Your task to perform on an android device: Open the calendar and show me this week's events Image 0: 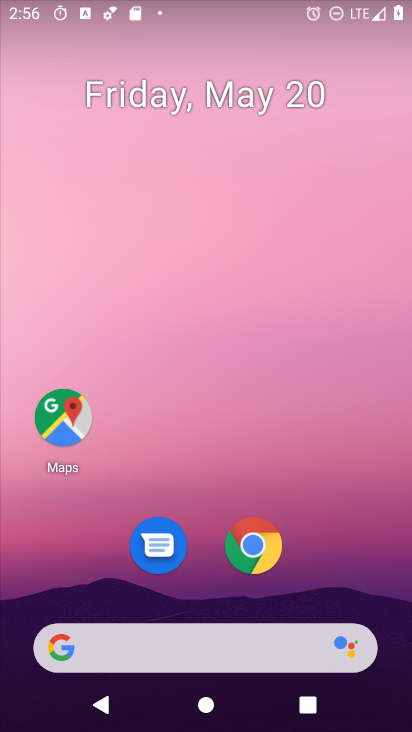
Step 0: drag from (254, 671) to (325, 0)
Your task to perform on an android device: Open the calendar and show me this week's events Image 1: 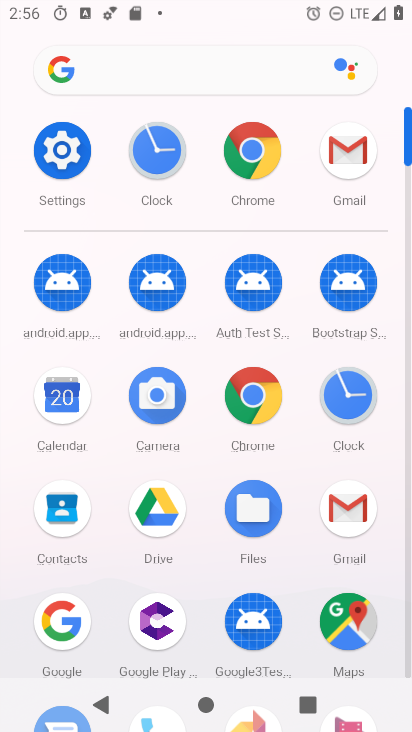
Step 1: click (55, 403)
Your task to perform on an android device: Open the calendar and show me this week's events Image 2: 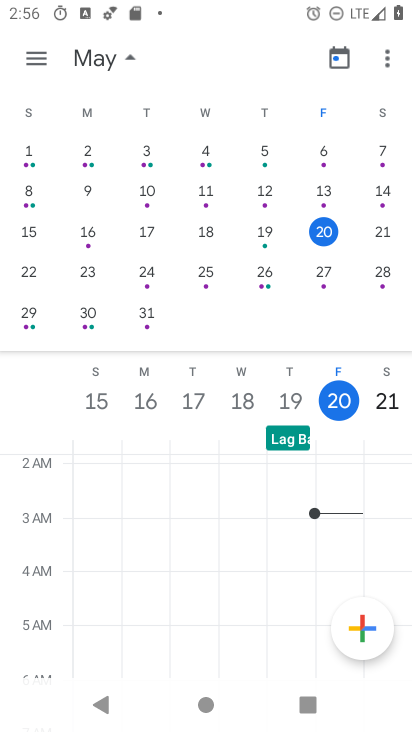
Step 2: drag from (357, 186) to (0, 246)
Your task to perform on an android device: Open the calendar and show me this week's events Image 3: 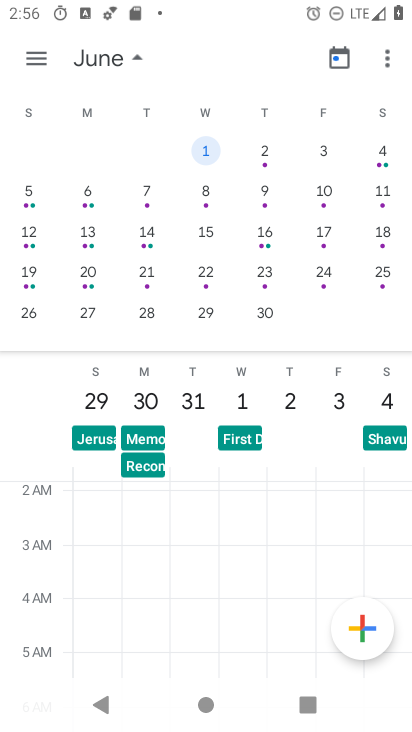
Step 3: drag from (62, 241) to (381, 243)
Your task to perform on an android device: Open the calendar and show me this week's events Image 4: 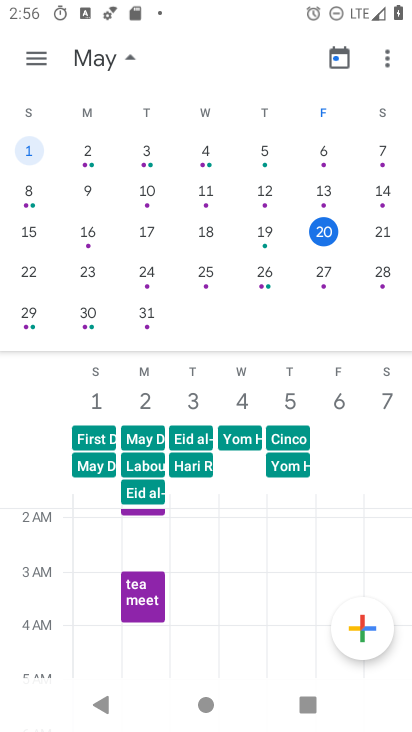
Step 4: click (378, 232)
Your task to perform on an android device: Open the calendar and show me this week's events Image 5: 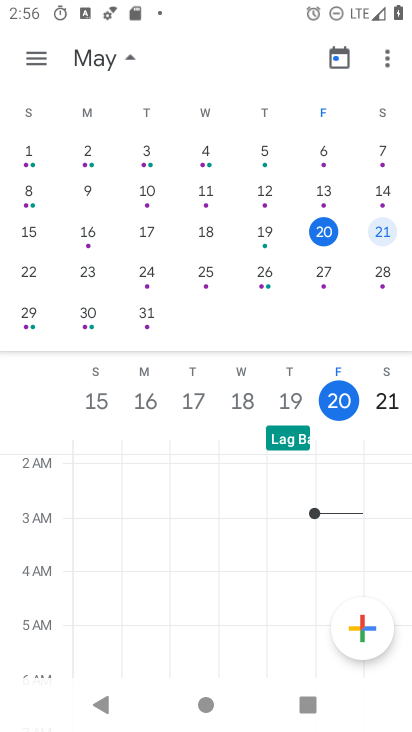
Step 5: click (378, 224)
Your task to perform on an android device: Open the calendar and show me this week's events Image 6: 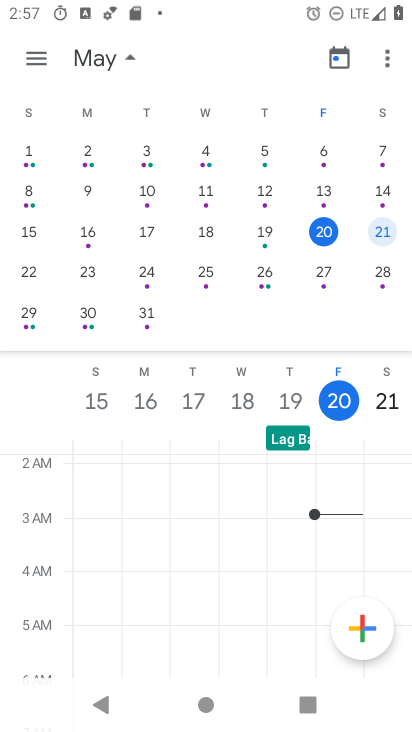
Step 6: click (379, 234)
Your task to perform on an android device: Open the calendar and show me this week's events Image 7: 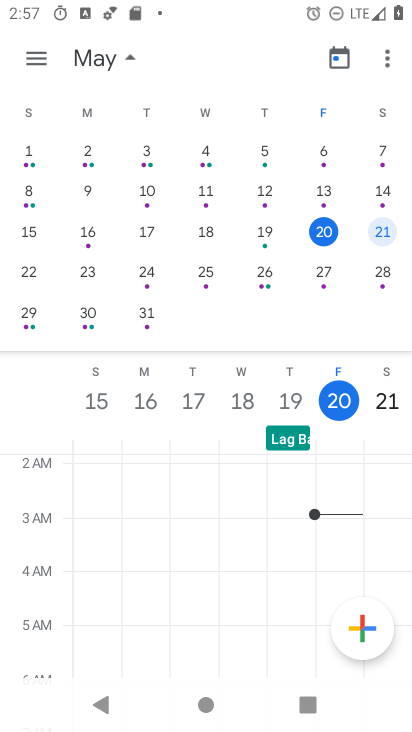
Step 7: task complete